Your task to perform on an android device: Go to sound settings Image 0: 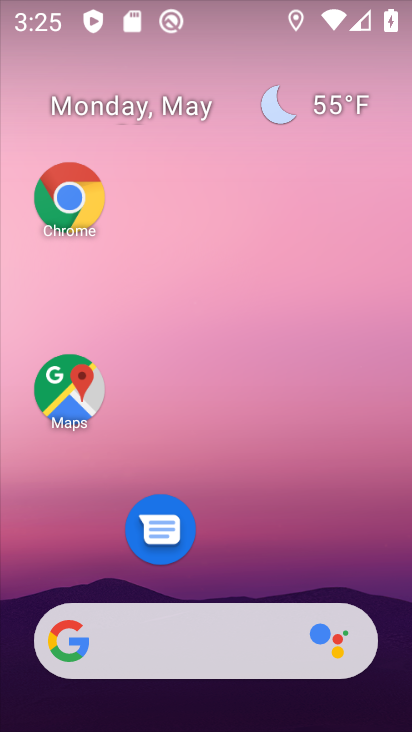
Step 0: drag from (270, 630) to (23, 47)
Your task to perform on an android device: Go to sound settings Image 1: 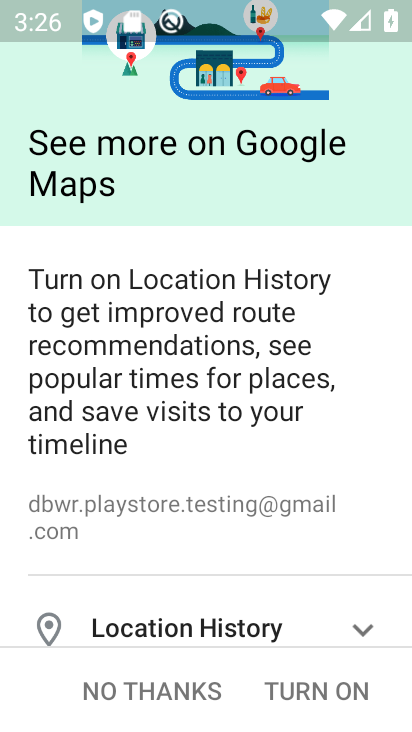
Step 1: click (320, 690)
Your task to perform on an android device: Go to sound settings Image 2: 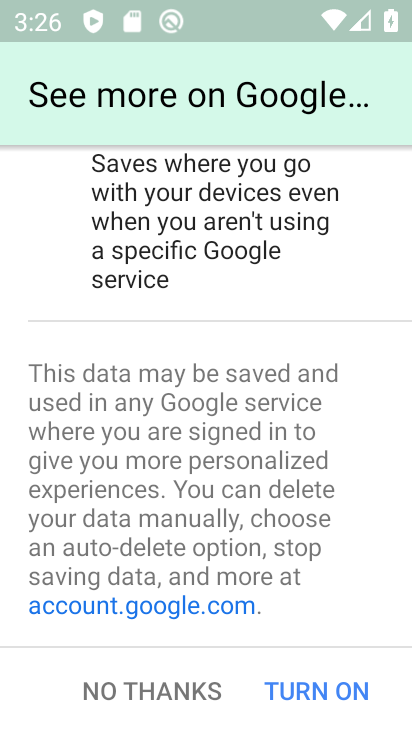
Step 2: click (320, 698)
Your task to perform on an android device: Go to sound settings Image 3: 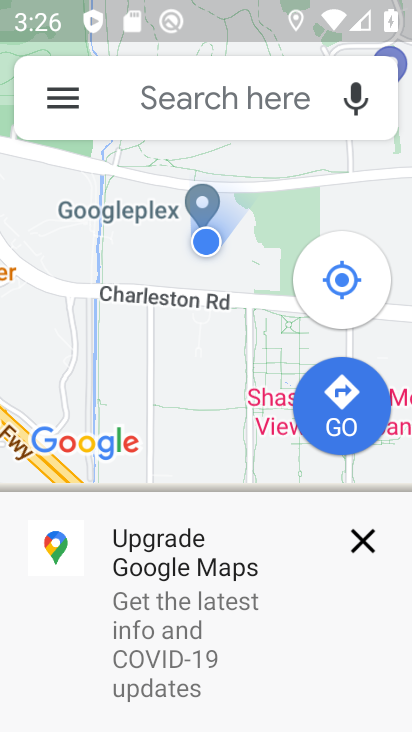
Step 3: click (385, 548)
Your task to perform on an android device: Go to sound settings Image 4: 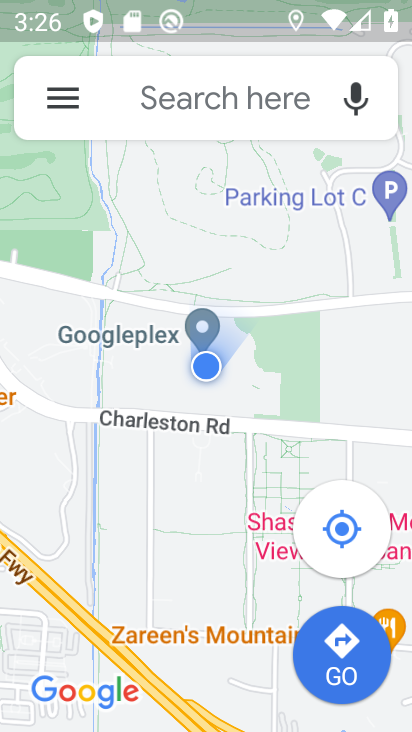
Step 4: click (59, 101)
Your task to perform on an android device: Go to sound settings Image 5: 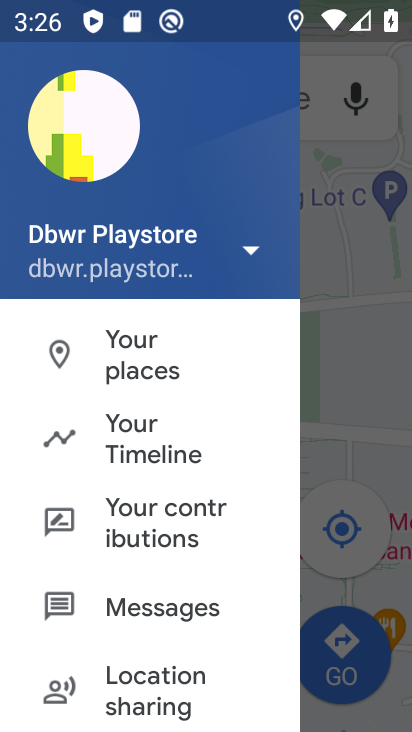
Step 5: press home button
Your task to perform on an android device: Go to sound settings Image 6: 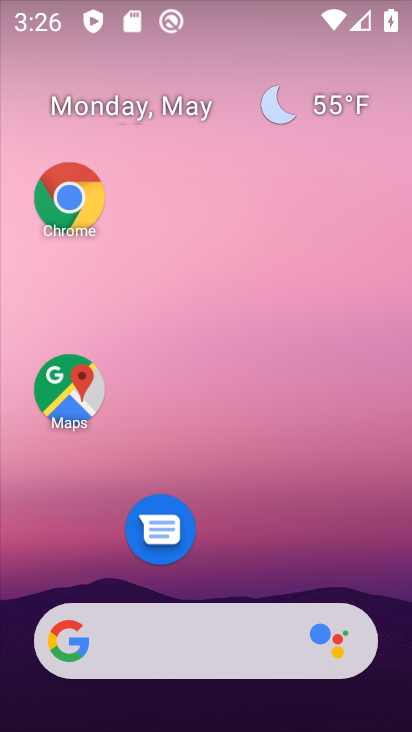
Step 6: drag from (284, 621) to (247, 37)
Your task to perform on an android device: Go to sound settings Image 7: 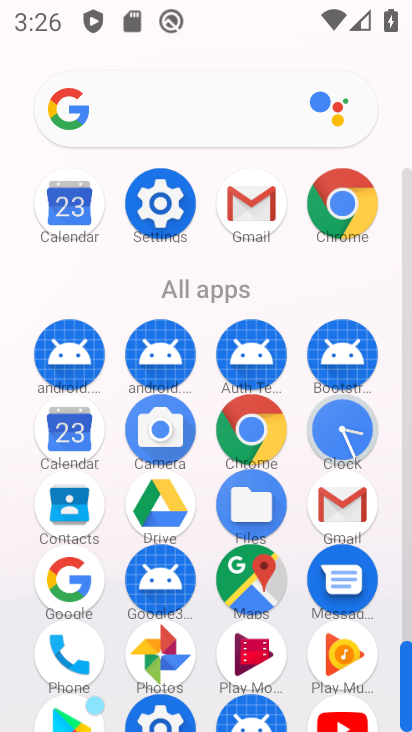
Step 7: click (170, 212)
Your task to perform on an android device: Go to sound settings Image 8: 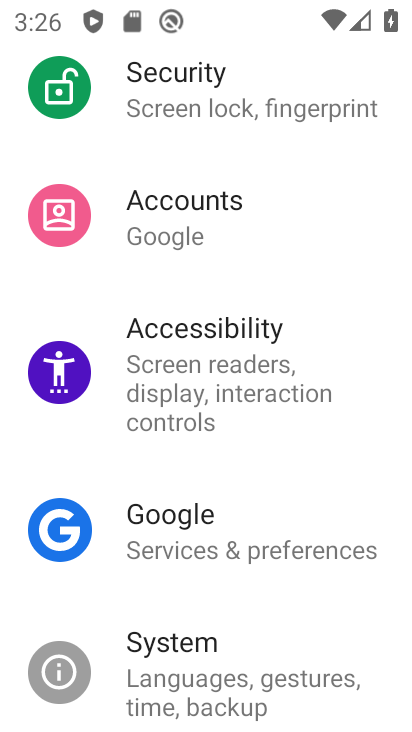
Step 8: drag from (219, 571) to (210, 138)
Your task to perform on an android device: Go to sound settings Image 9: 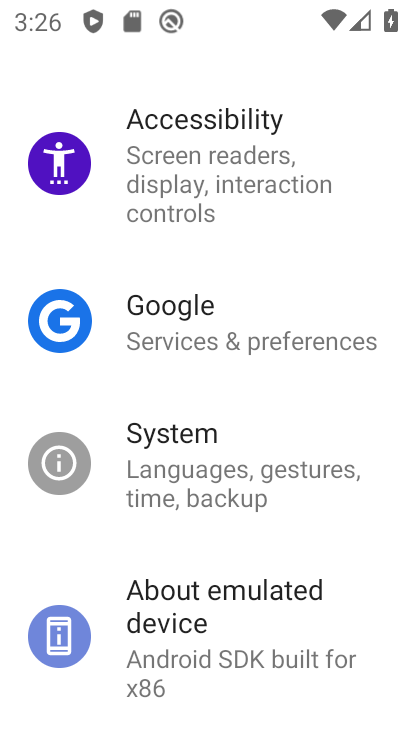
Step 9: drag from (231, 520) to (248, 135)
Your task to perform on an android device: Go to sound settings Image 10: 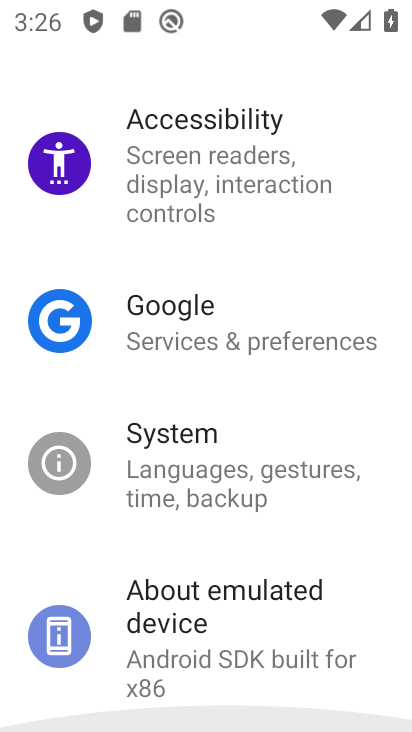
Step 10: drag from (264, 212) to (285, 674)
Your task to perform on an android device: Go to sound settings Image 11: 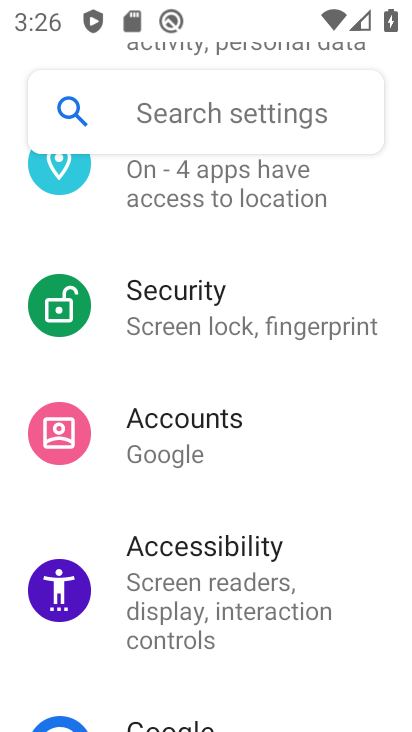
Step 11: drag from (247, 360) to (247, 721)
Your task to perform on an android device: Go to sound settings Image 12: 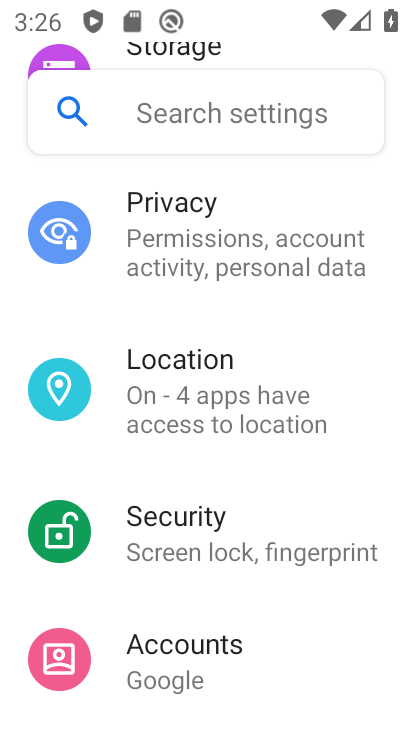
Step 12: drag from (202, 322) to (205, 671)
Your task to perform on an android device: Go to sound settings Image 13: 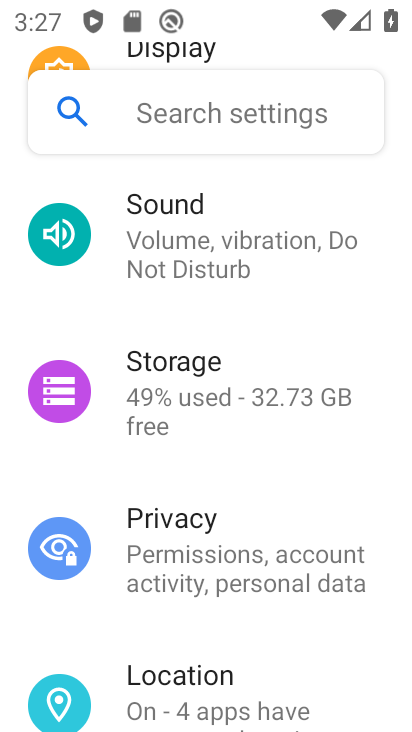
Step 13: drag from (212, 338) to (224, 638)
Your task to perform on an android device: Go to sound settings Image 14: 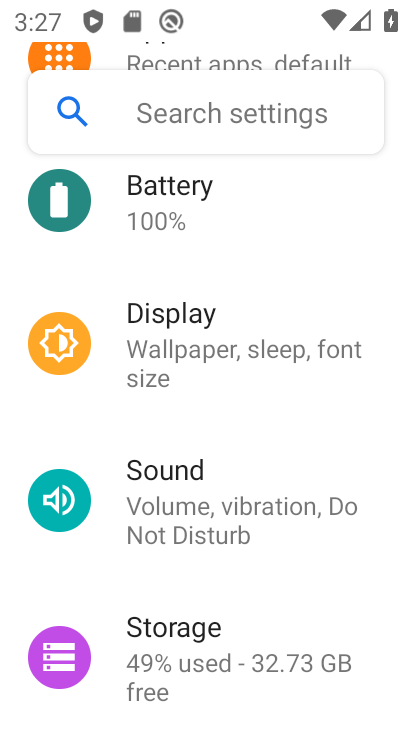
Step 14: click (201, 525)
Your task to perform on an android device: Go to sound settings Image 15: 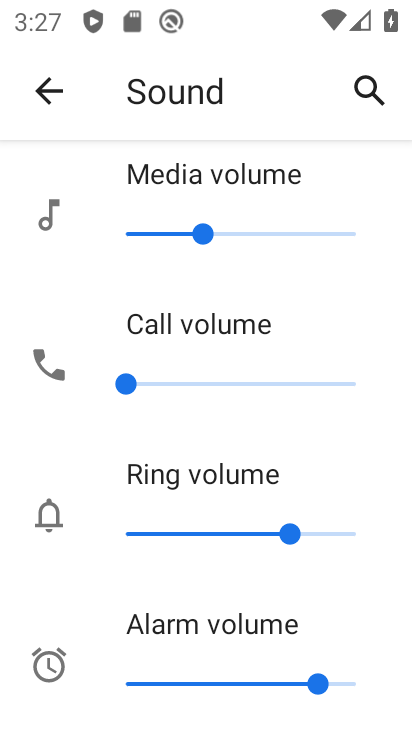
Step 15: task complete